Your task to perform on an android device: Open Yahoo.com Image 0: 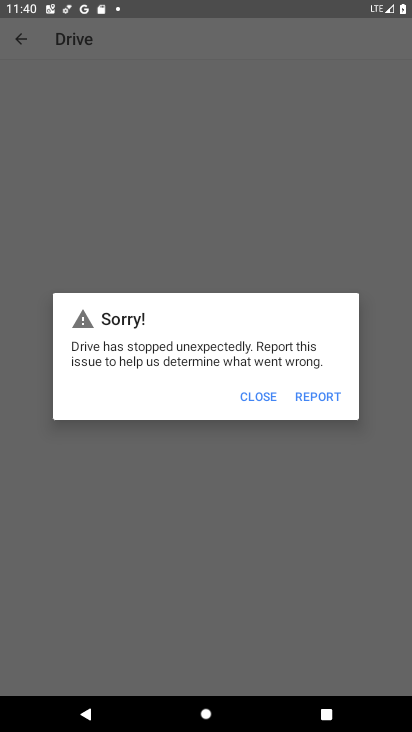
Step 0: press home button
Your task to perform on an android device: Open Yahoo.com Image 1: 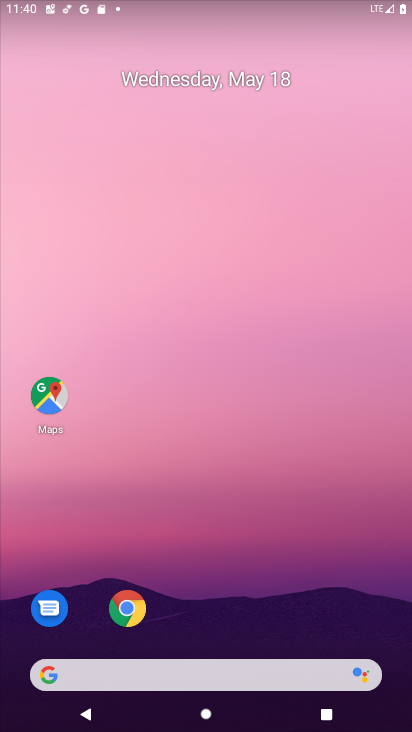
Step 1: click (128, 612)
Your task to perform on an android device: Open Yahoo.com Image 2: 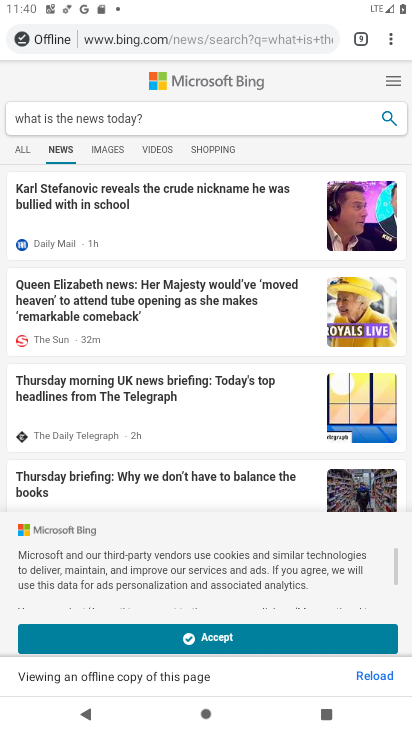
Step 2: click (363, 43)
Your task to perform on an android device: Open Yahoo.com Image 3: 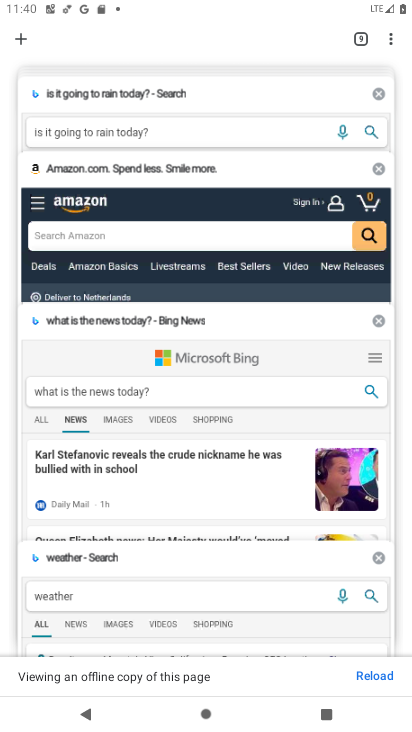
Step 3: drag from (140, 139) to (119, 539)
Your task to perform on an android device: Open Yahoo.com Image 4: 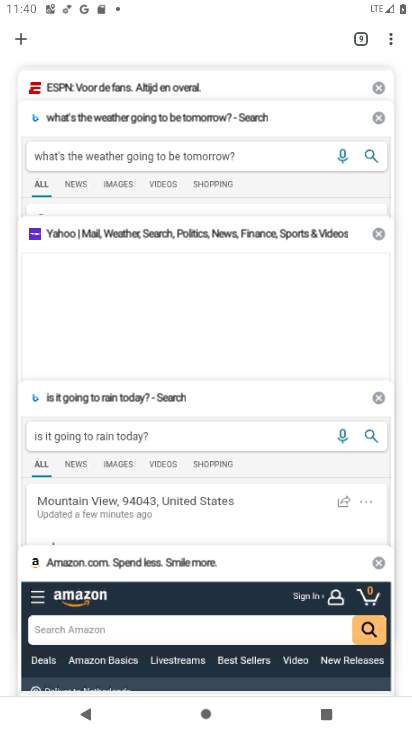
Step 4: click (100, 319)
Your task to perform on an android device: Open Yahoo.com Image 5: 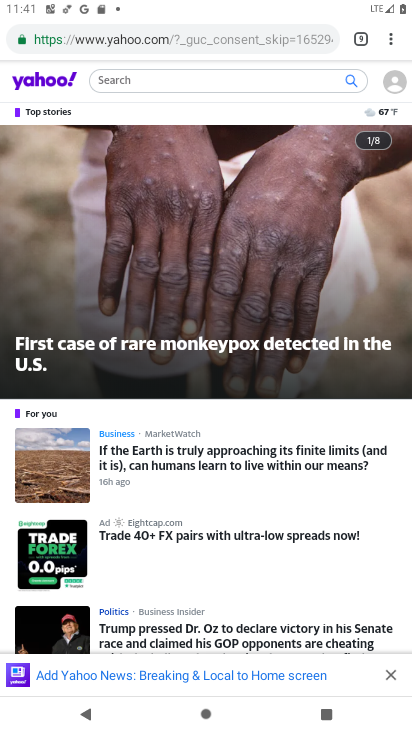
Step 5: task complete